Your task to perform on an android device: Open settings Image 0: 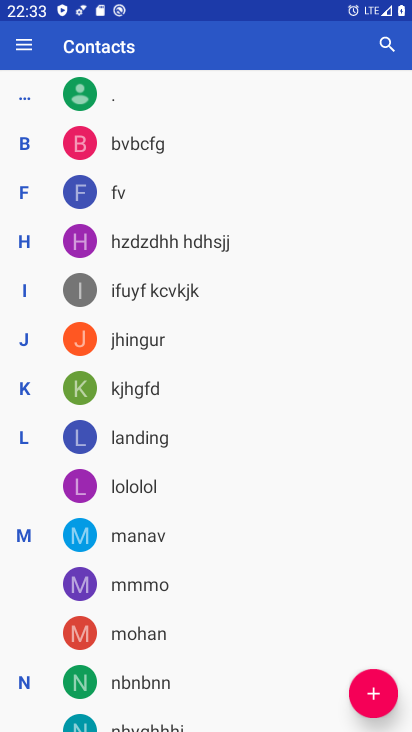
Step 0: press back button
Your task to perform on an android device: Open settings Image 1: 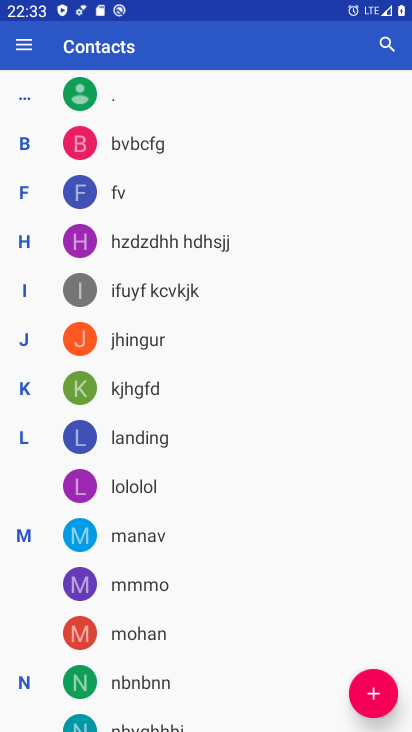
Step 1: press back button
Your task to perform on an android device: Open settings Image 2: 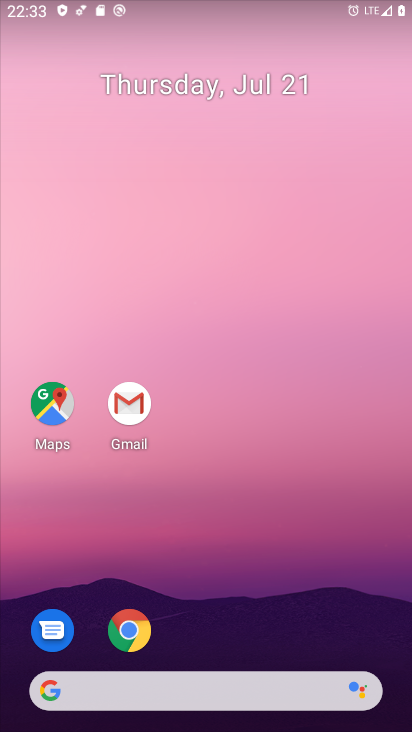
Step 2: drag from (267, 689) to (215, 250)
Your task to perform on an android device: Open settings Image 3: 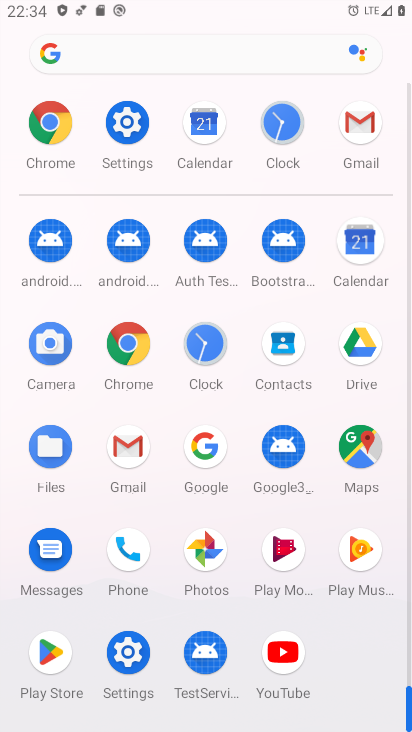
Step 3: click (135, 133)
Your task to perform on an android device: Open settings Image 4: 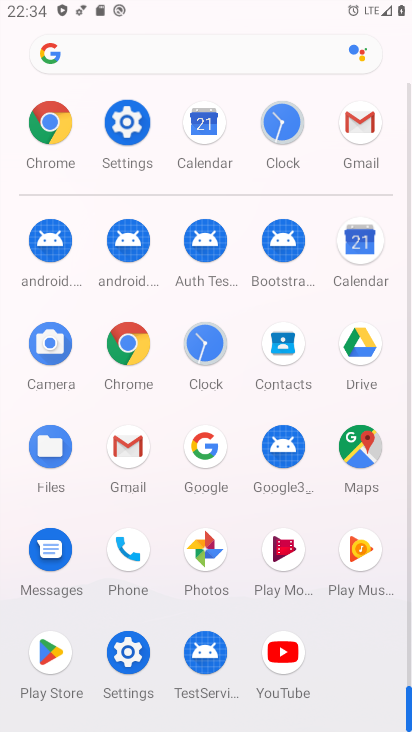
Step 4: click (135, 133)
Your task to perform on an android device: Open settings Image 5: 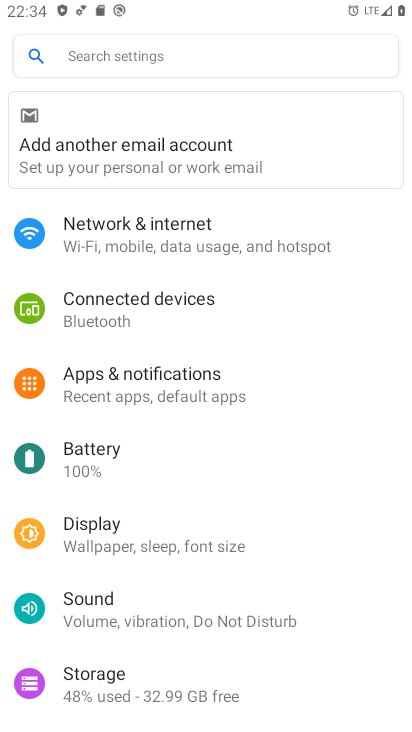
Step 5: task complete